Your task to perform on an android device: When is my next meeting? Image 0: 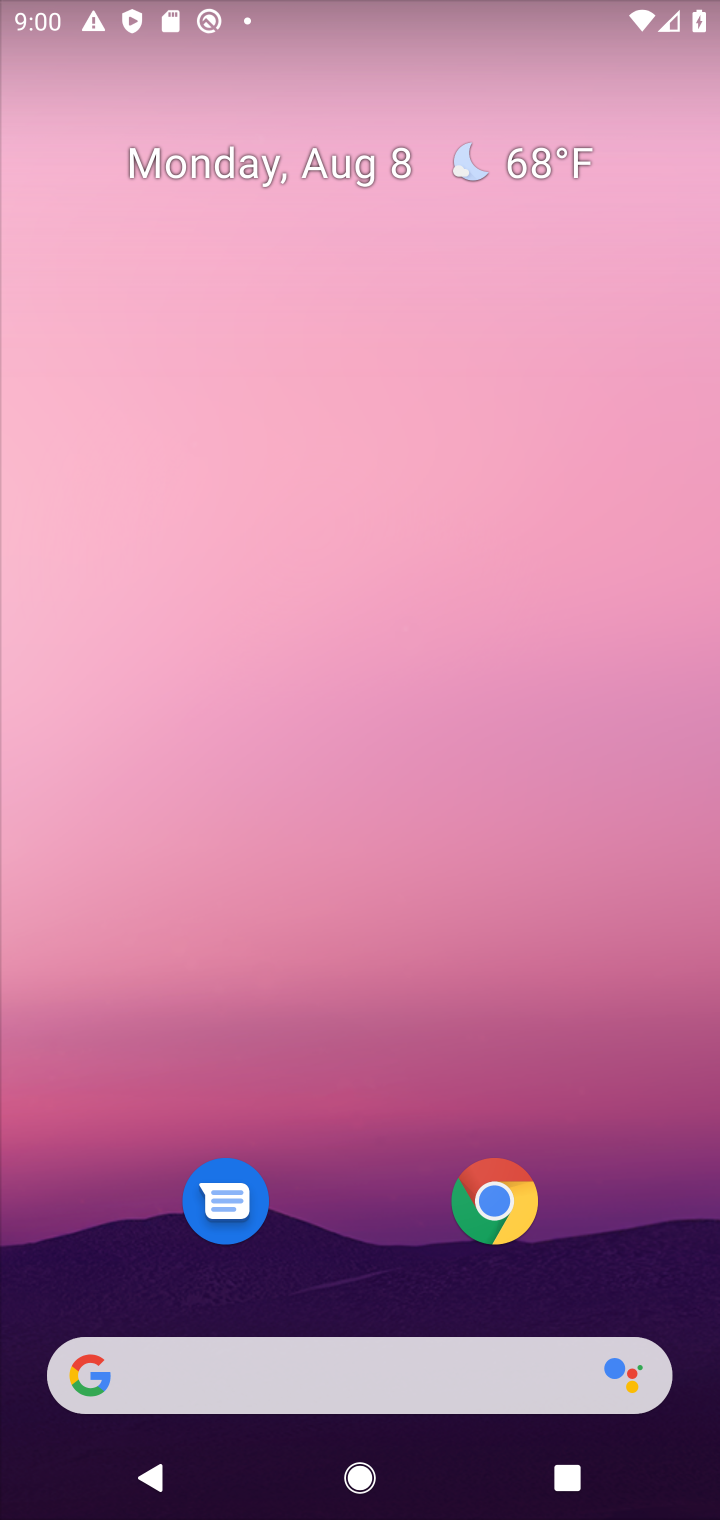
Step 0: drag from (390, 1081) to (404, 168)
Your task to perform on an android device: When is my next meeting? Image 1: 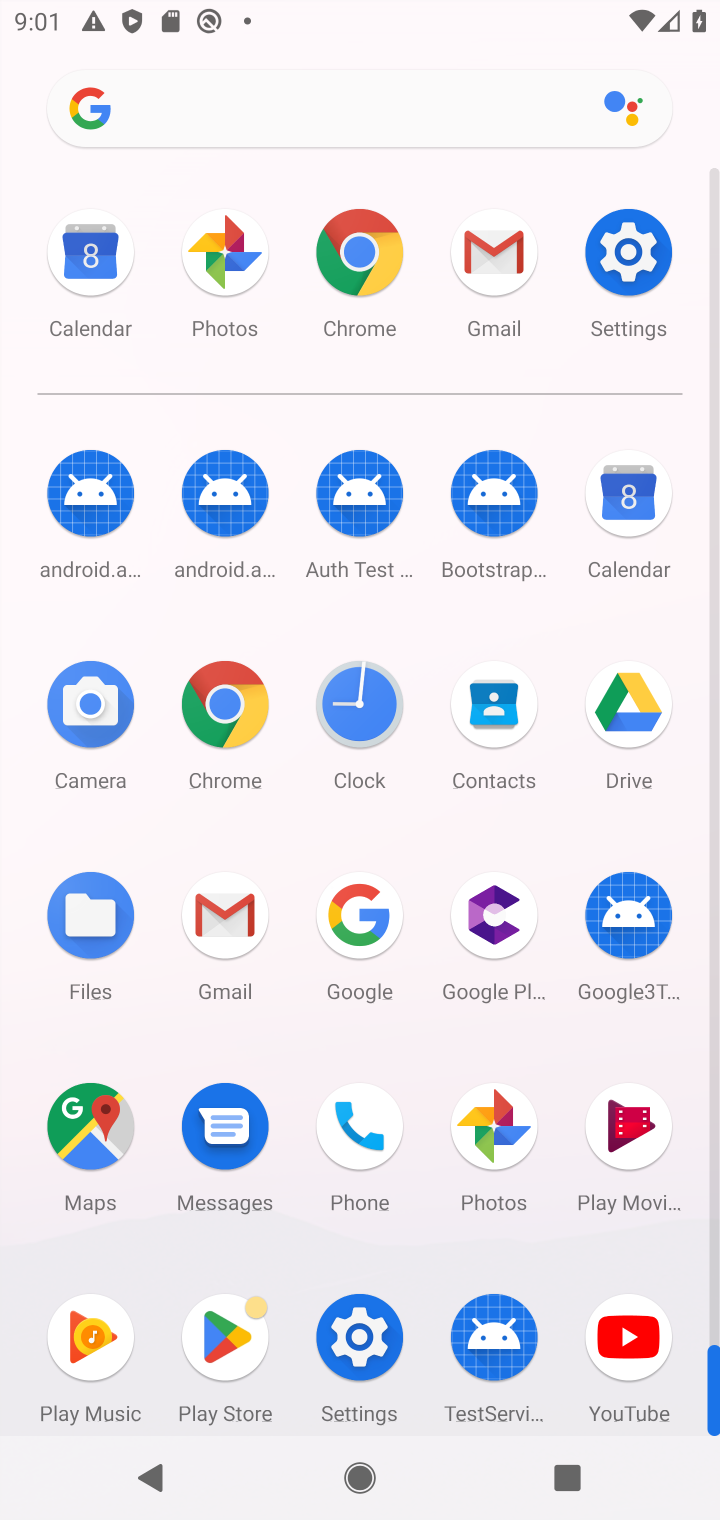
Step 1: click (619, 490)
Your task to perform on an android device: When is my next meeting? Image 2: 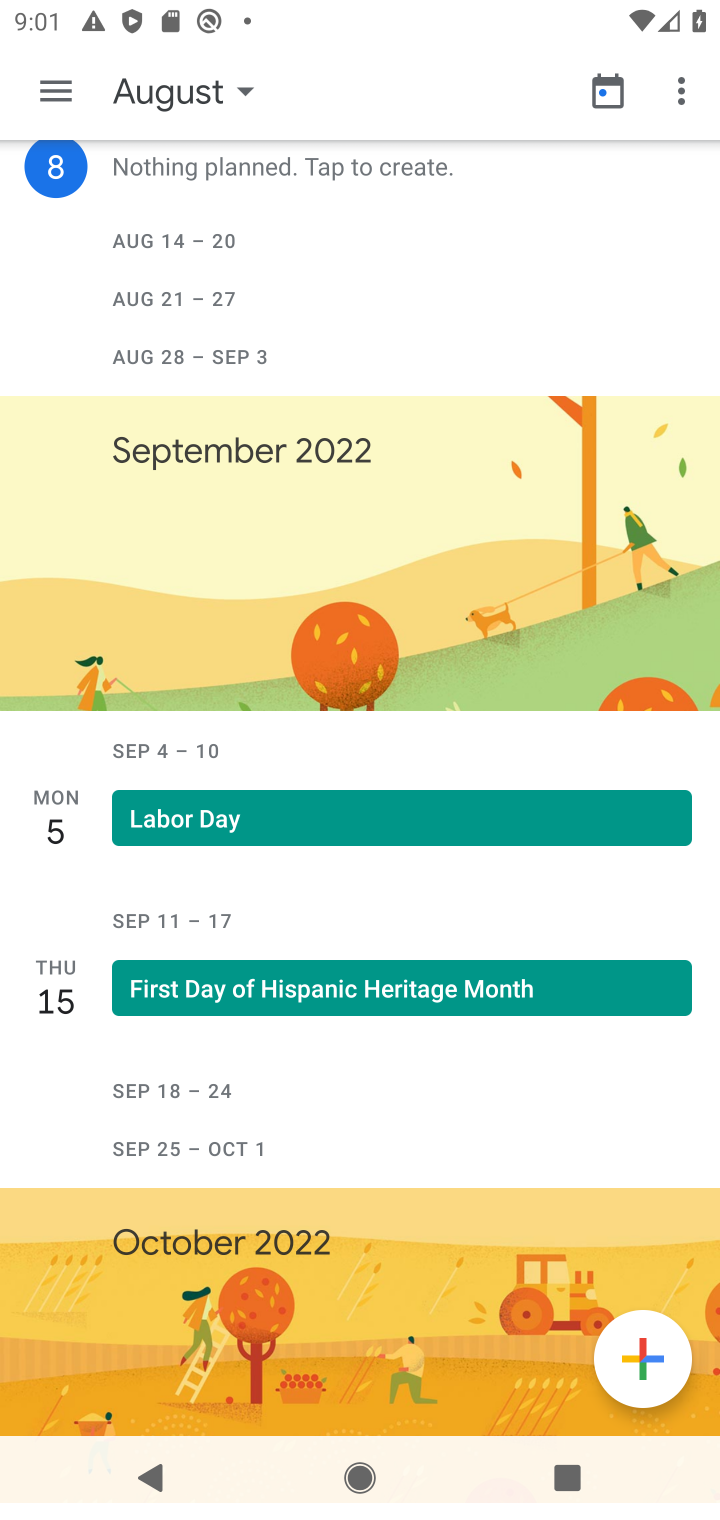
Step 2: task complete